Your task to perform on an android device: change timer sound Image 0: 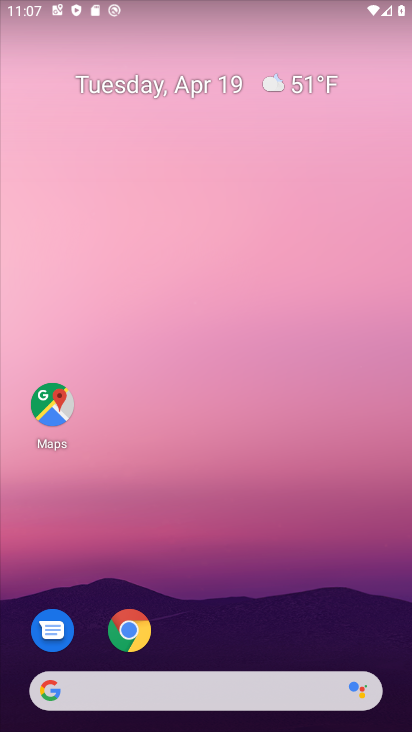
Step 0: drag from (273, 609) to (271, 248)
Your task to perform on an android device: change timer sound Image 1: 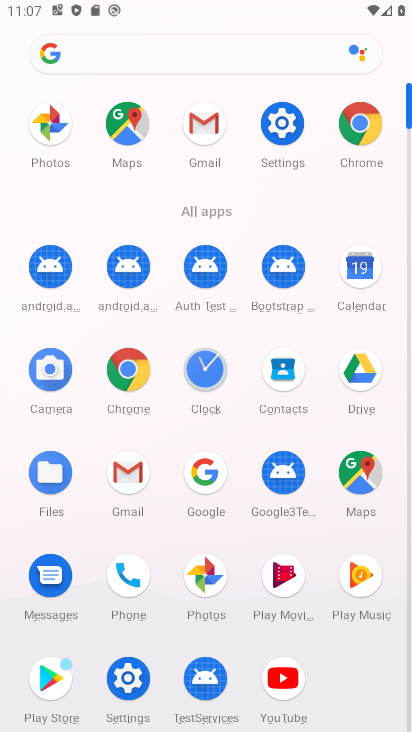
Step 1: click (200, 373)
Your task to perform on an android device: change timer sound Image 2: 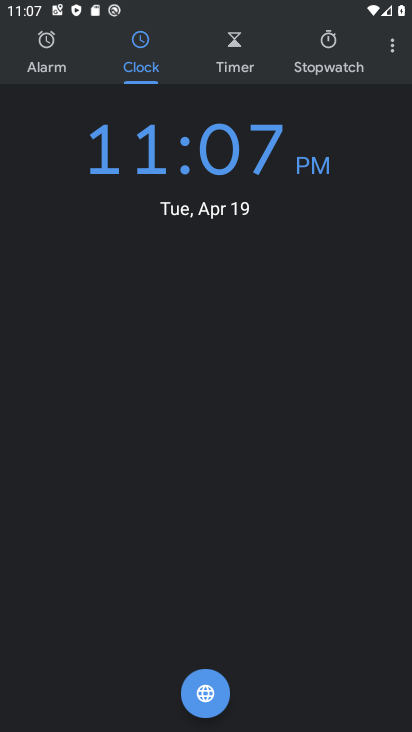
Step 2: click (388, 52)
Your task to perform on an android device: change timer sound Image 3: 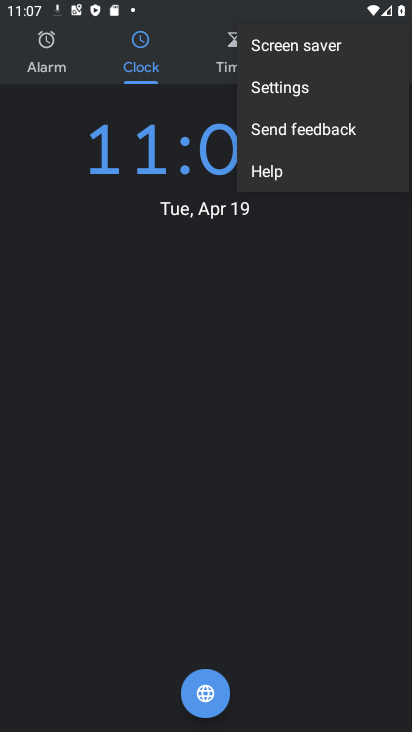
Step 3: click (304, 86)
Your task to perform on an android device: change timer sound Image 4: 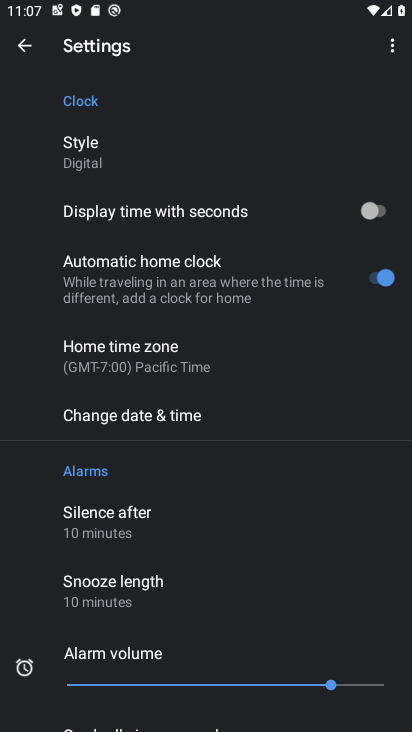
Step 4: drag from (289, 457) to (276, 70)
Your task to perform on an android device: change timer sound Image 5: 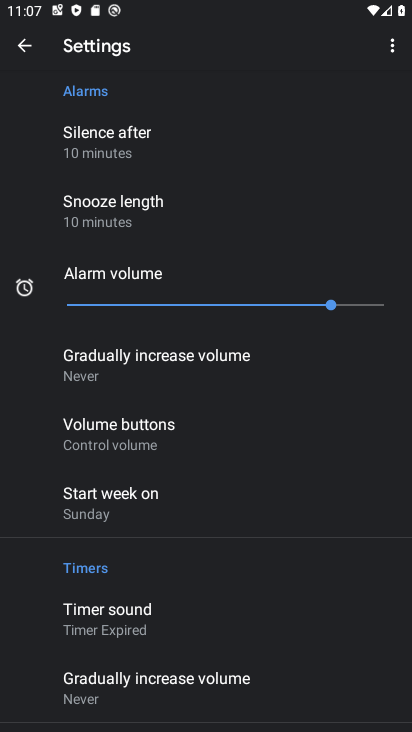
Step 5: drag from (245, 519) to (244, 422)
Your task to perform on an android device: change timer sound Image 6: 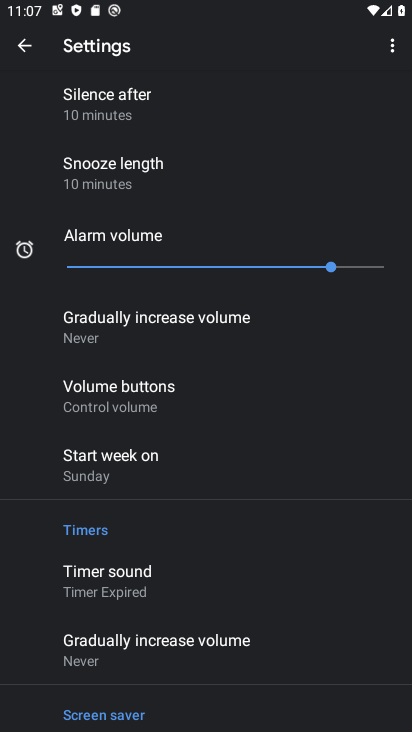
Step 6: click (223, 566)
Your task to perform on an android device: change timer sound Image 7: 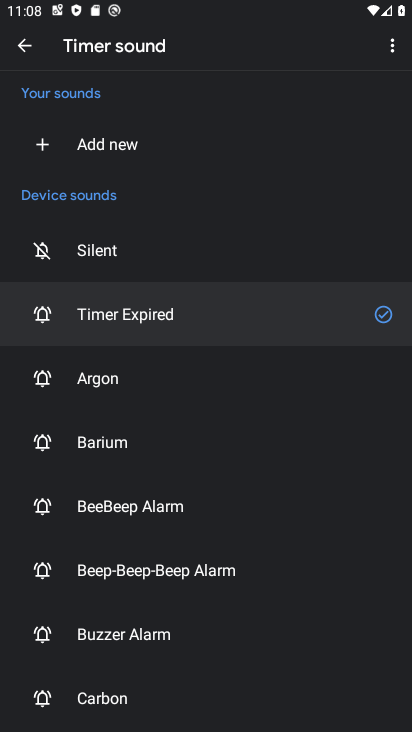
Step 7: click (182, 509)
Your task to perform on an android device: change timer sound Image 8: 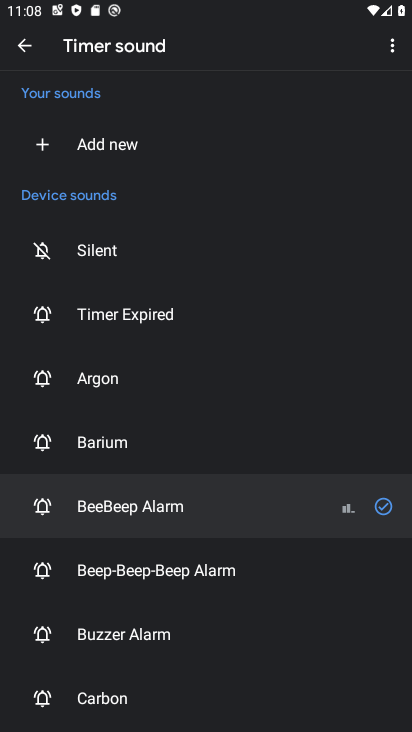
Step 8: task complete